Your task to perform on an android device: add a contact Image 0: 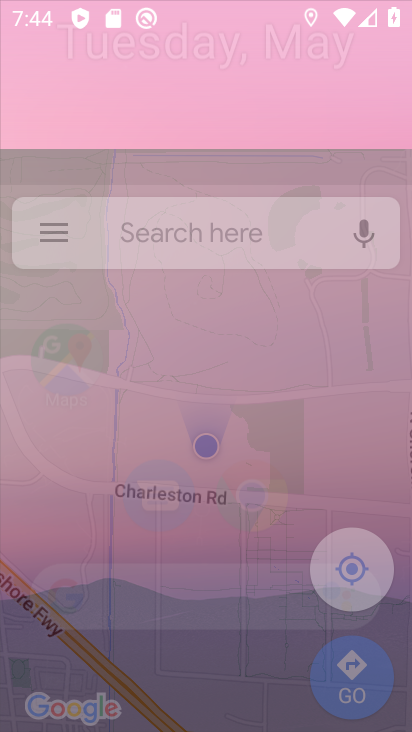
Step 0: drag from (390, 352) to (378, 114)
Your task to perform on an android device: add a contact Image 1: 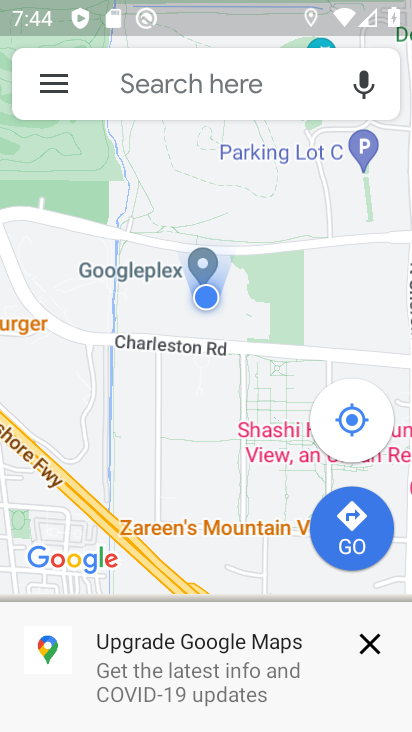
Step 1: click (330, 559)
Your task to perform on an android device: add a contact Image 2: 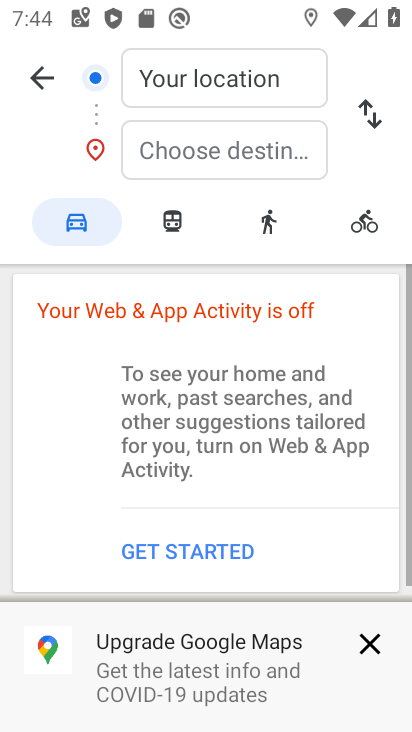
Step 2: press home button
Your task to perform on an android device: add a contact Image 3: 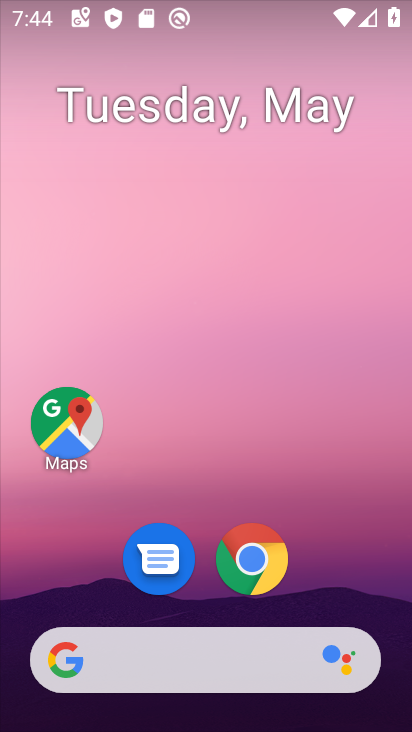
Step 3: drag from (321, 585) to (301, 61)
Your task to perform on an android device: add a contact Image 4: 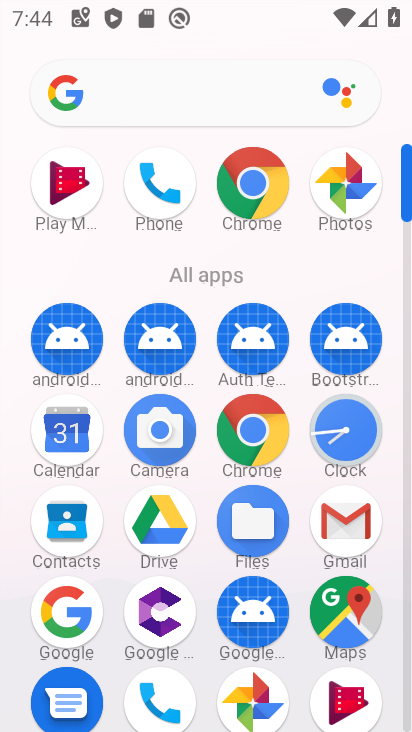
Step 4: click (166, 199)
Your task to perform on an android device: add a contact Image 5: 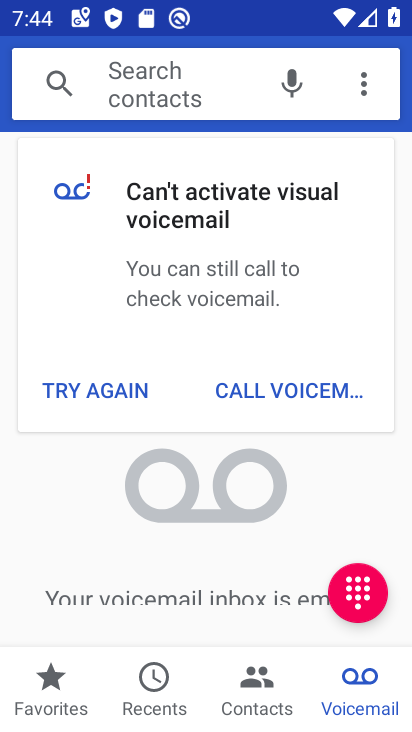
Step 5: click (230, 697)
Your task to perform on an android device: add a contact Image 6: 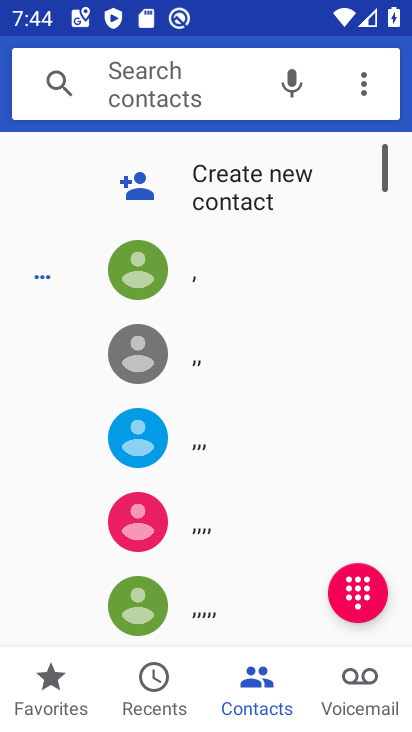
Step 6: click (193, 158)
Your task to perform on an android device: add a contact Image 7: 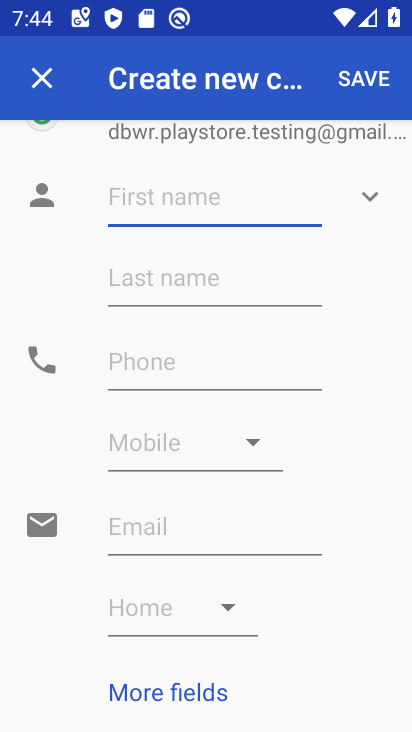
Step 7: type "tryr"
Your task to perform on an android device: add a contact Image 8: 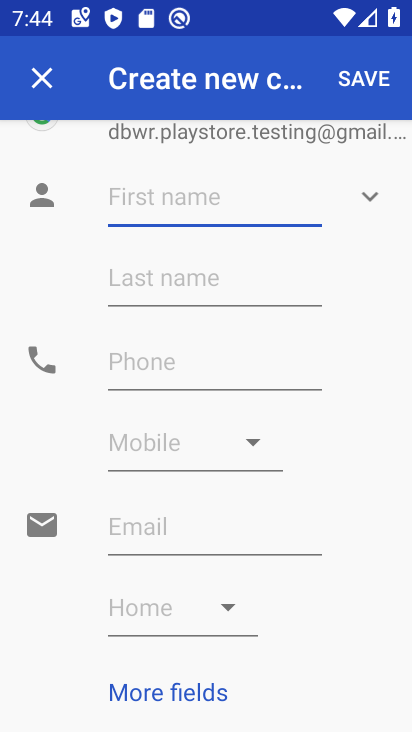
Step 8: click (113, 380)
Your task to perform on an android device: add a contact Image 9: 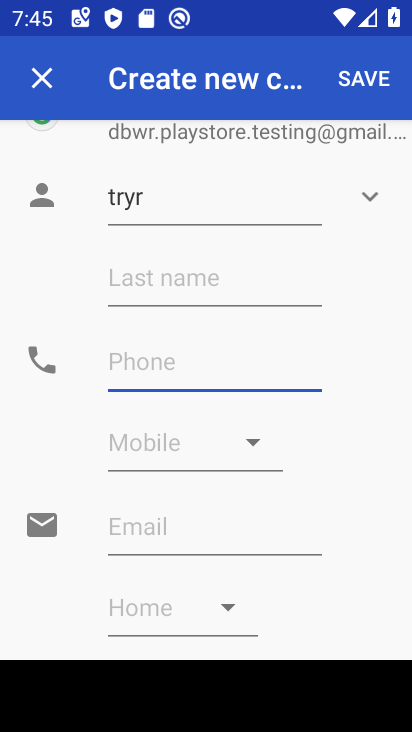
Step 9: type "4646464664"
Your task to perform on an android device: add a contact Image 10: 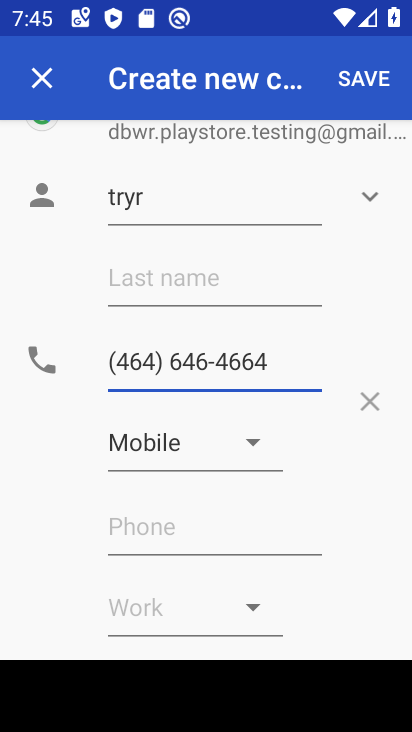
Step 10: click (382, 85)
Your task to perform on an android device: add a contact Image 11: 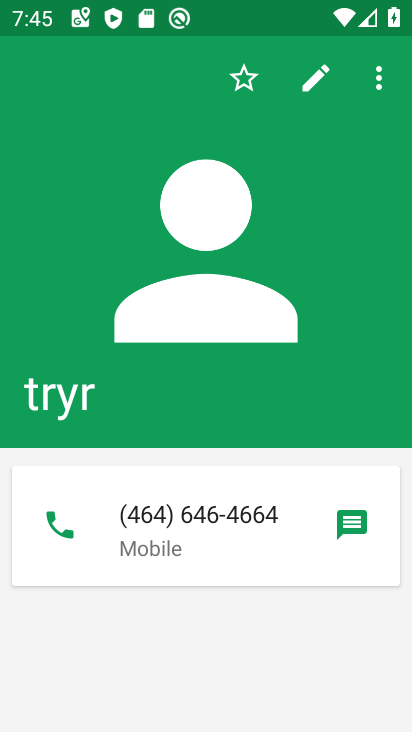
Step 11: task complete